Your task to perform on an android device: Open Google Chrome and open the bookmarks view Image 0: 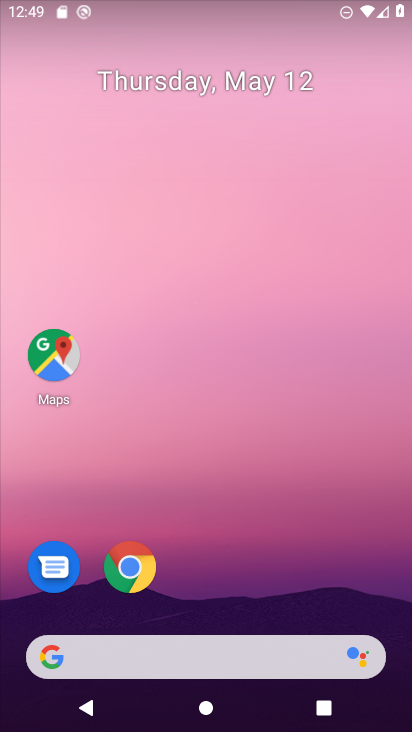
Step 0: click (131, 577)
Your task to perform on an android device: Open Google Chrome and open the bookmarks view Image 1: 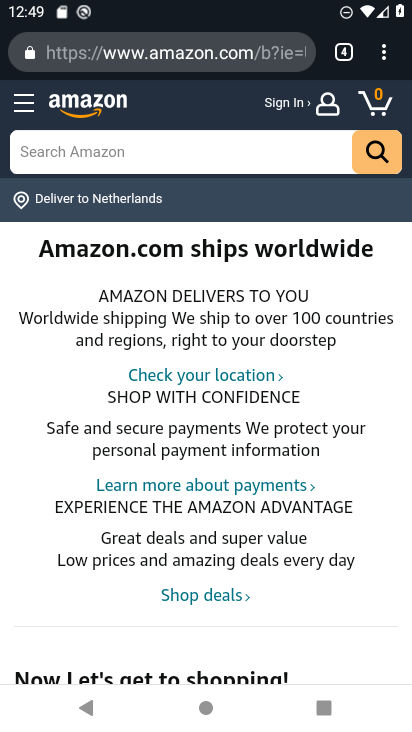
Step 1: click (390, 60)
Your task to perform on an android device: Open Google Chrome and open the bookmarks view Image 2: 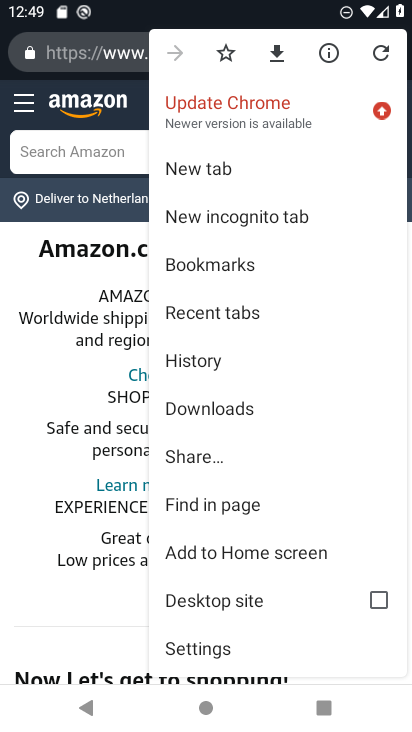
Step 2: click (214, 269)
Your task to perform on an android device: Open Google Chrome and open the bookmarks view Image 3: 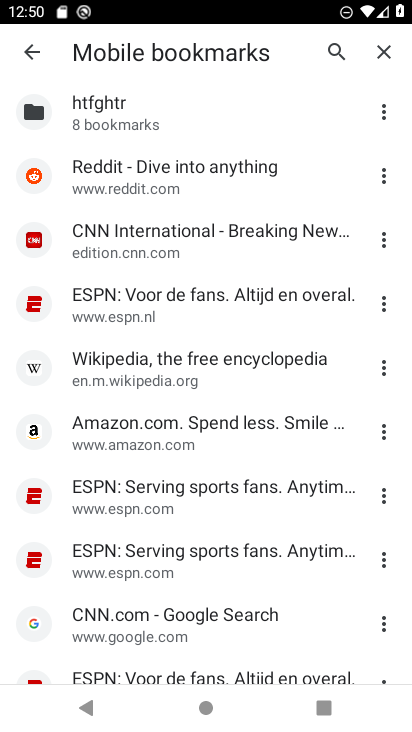
Step 3: task complete